Your task to perform on an android device: turn on notifications settings in the gmail app Image 0: 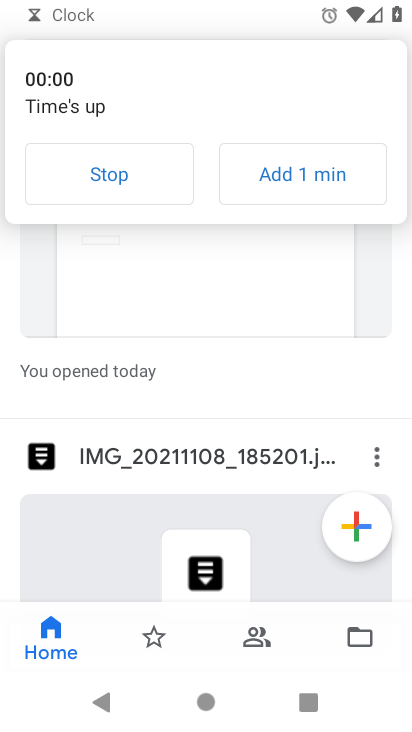
Step 0: press back button
Your task to perform on an android device: turn on notifications settings in the gmail app Image 1: 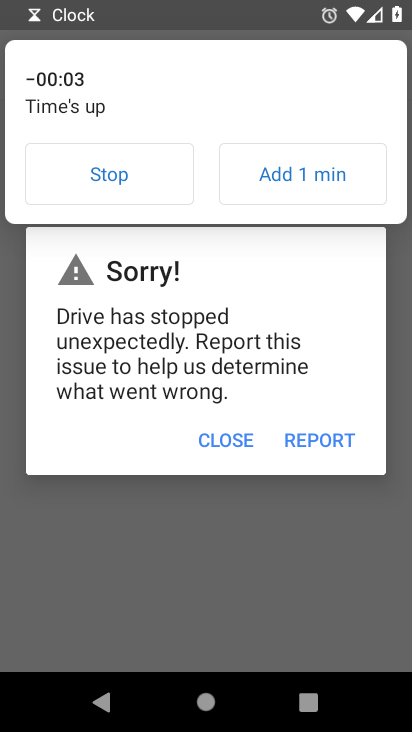
Step 1: click (139, 180)
Your task to perform on an android device: turn on notifications settings in the gmail app Image 2: 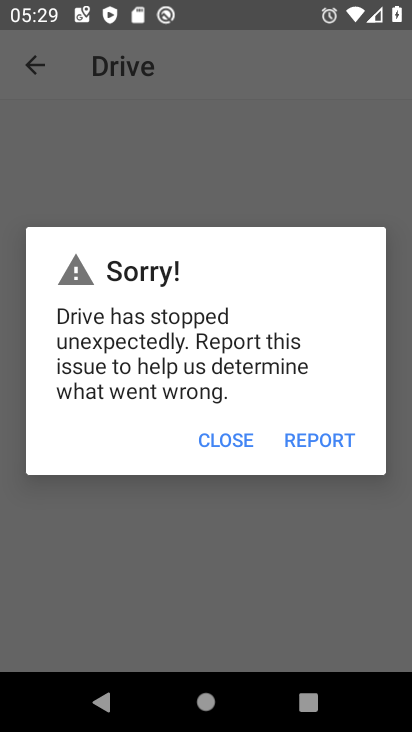
Step 2: press home button
Your task to perform on an android device: turn on notifications settings in the gmail app Image 3: 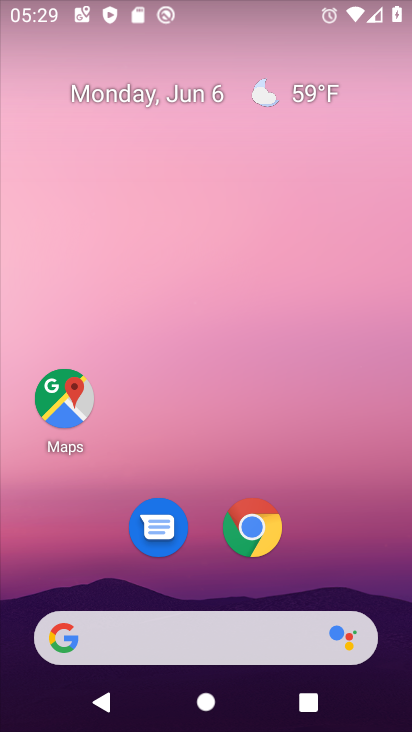
Step 3: drag from (396, 696) to (341, 67)
Your task to perform on an android device: turn on notifications settings in the gmail app Image 4: 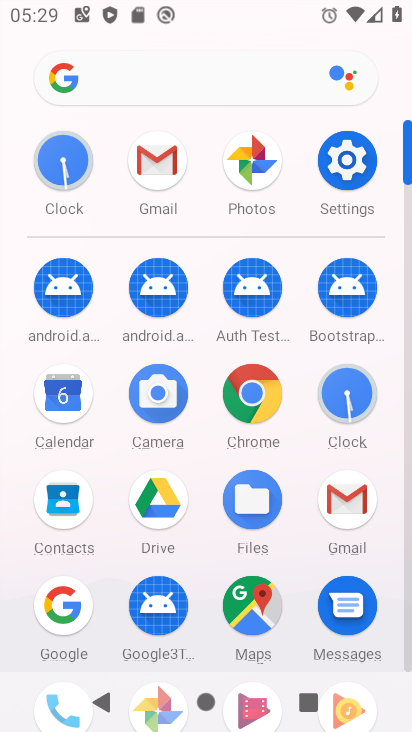
Step 4: click (340, 484)
Your task to perform on an android device: turn on notifications settings in the gmail app Image 5: 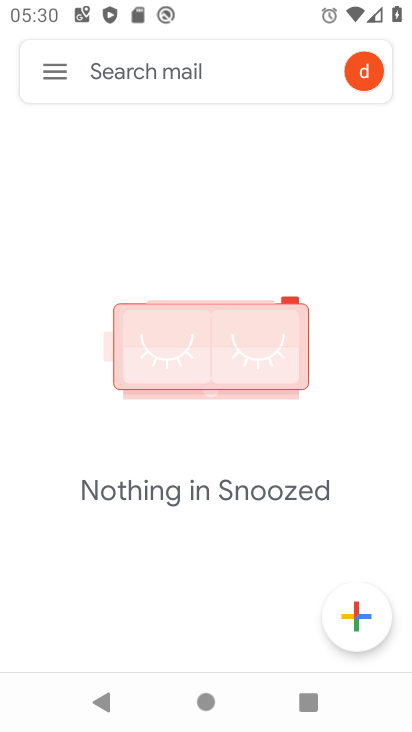
Step 5: click (56, 70)
Your task to perform on an android device: turn on notifications settings in the gmail app Image 6: 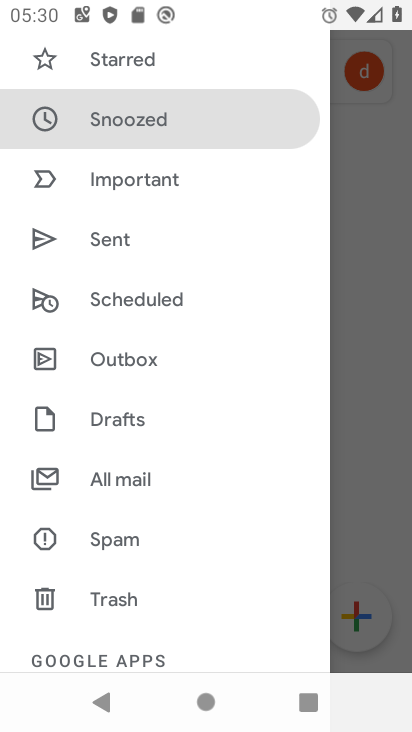
Step 6: drag from (192, 613) to (230, 300)
Your task to perform on an android device: turn on notifications settings in the gmail app Image 7: 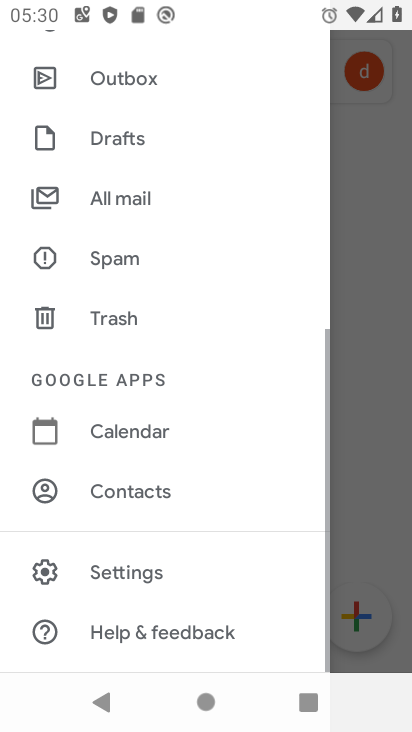
Step 7: click (133, 577)
Your task to perform on an android device: turn on notifications settings in the gmail app Image 8: 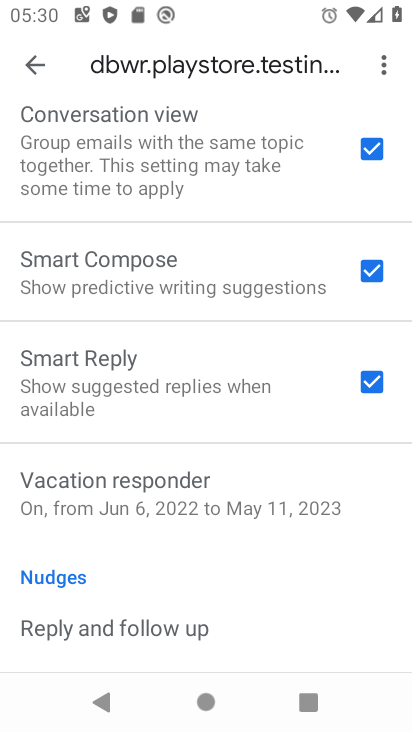
Step 8: drag from (180, 117) to (209, 625)
Your task to perform on an android device: turn on notifications settings in the gmail app Image 9: 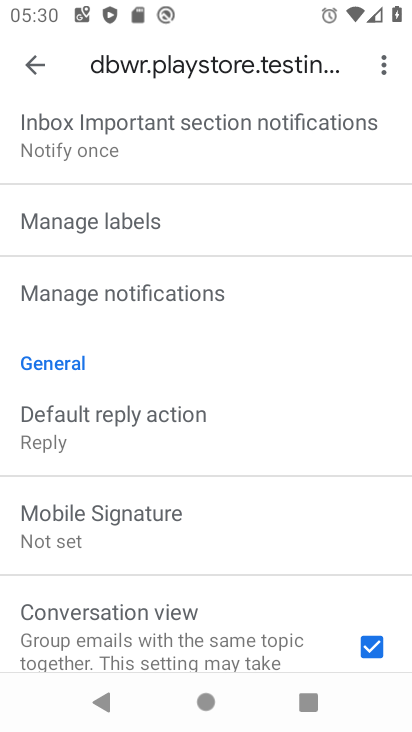
Step 9: drag from (183, 172) to (199, 481)
Your task to perform on an android device: turn on notifications settings in the gmail app Image 10: 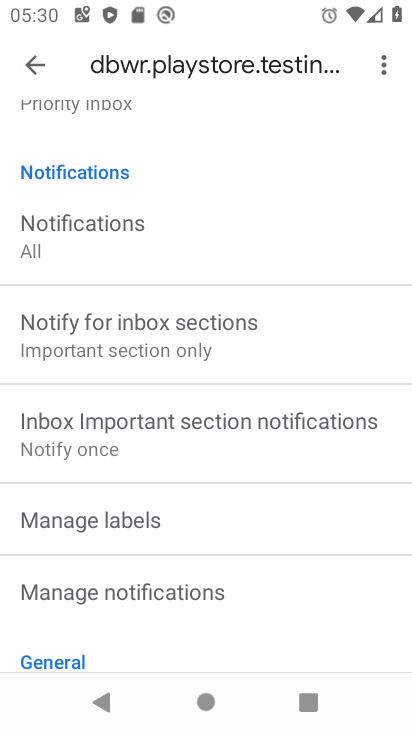
Step 10: click (30, 71)
Your task to perform on an android device: turn on notifications settings in the gmail app Image 11: 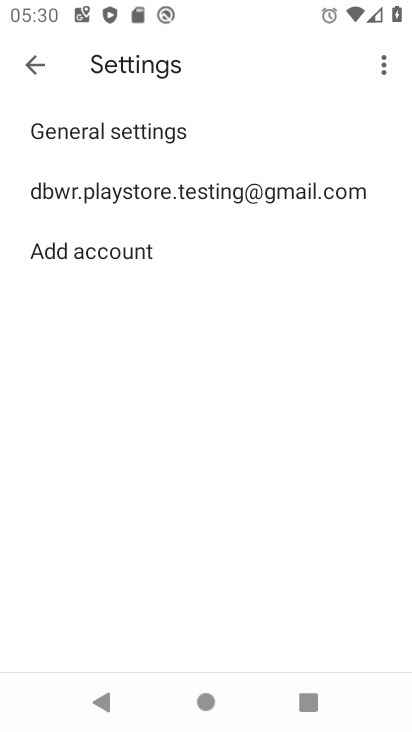
Step 11: click (85, 124)
Your task to perform on an android device: turn on notifications settings in the gmail app Image 12: 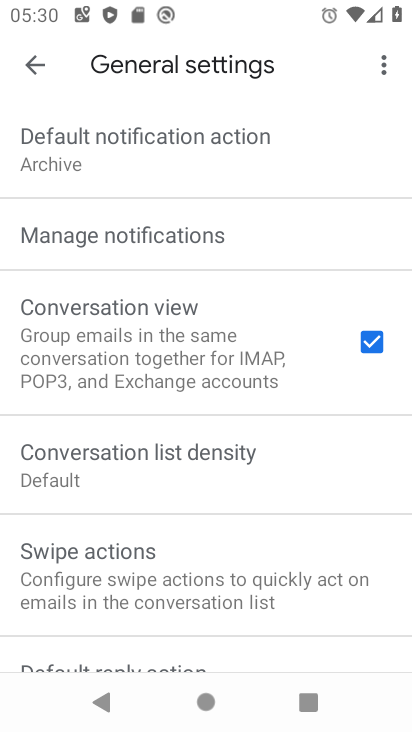
Step 12: click (95, 230)
Your task to perform on an android device: turn on notifications settings in the gmail app Image 13: 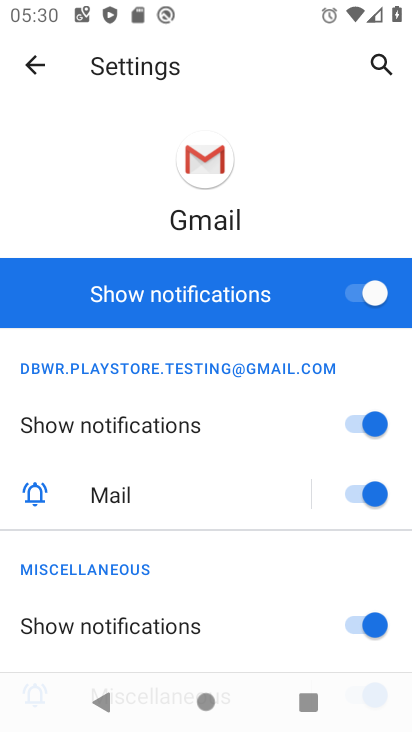
Step 13: task complete